Your task to perform on an android device: Check the settings for the Twitter app Image 0: 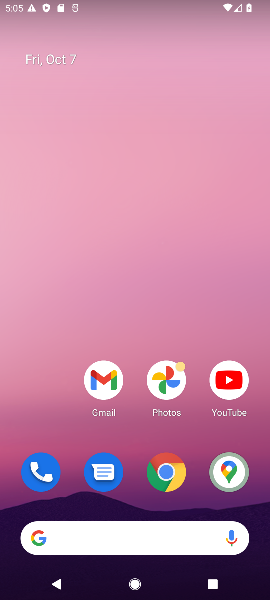
Step 0: drag from (195, 431) to (195, 259)
Your task to perform on an android device: Check the settings for the Twitter app Image 1: 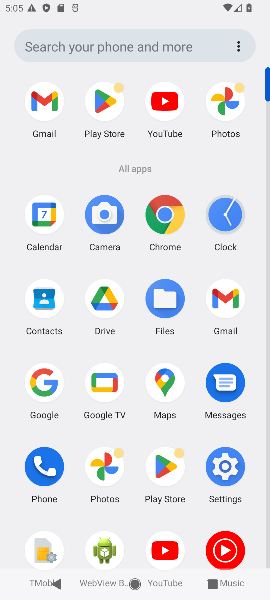
Step 1: click (167, 479)
Your task to perform on an android device: Check the settings for the Twitter app Image 2: 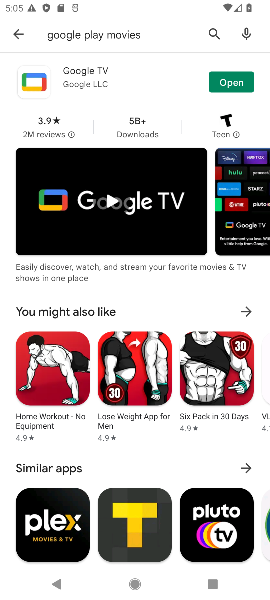
Step 2: click (216, 36)
Your task to perform on an android device: Check the settings for the Twitter app Image 3: 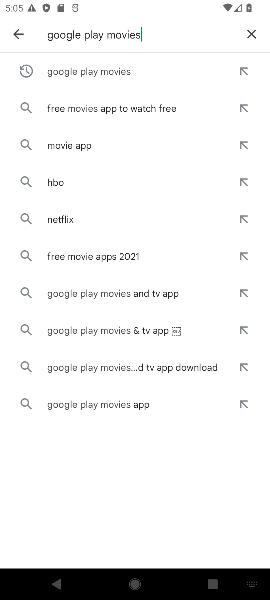
Step 3: click (252, 35)
Your task to perform on an android device: Check the settings for the Twitter app Image 4: 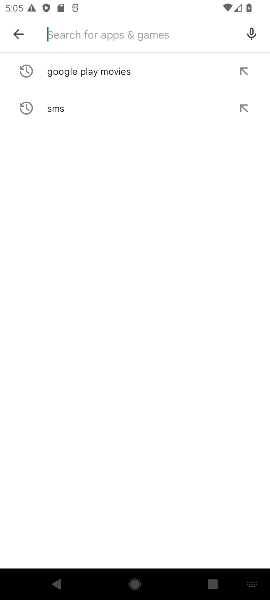
Step 4: type "twitter"
Your task to perform on an android device: Check the settings for the Twitter app Image 5: 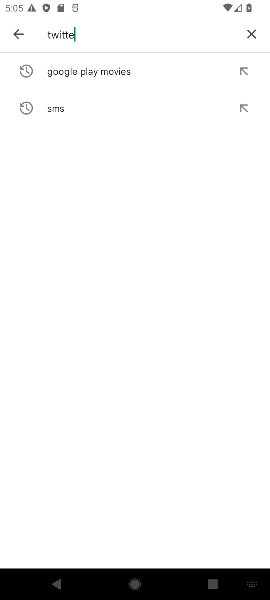
Step 5: type ""
Your task to perform on an android device: Check the settings for the Twitter app Image 6: 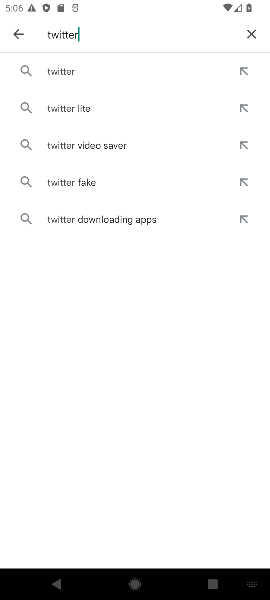
Step 6: click (73, 73)
Your task to perform on an android device: Check the settings for the Twitter app Image 7: 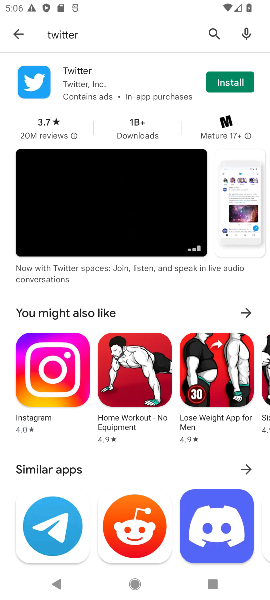
Step 7: click (230, 85)
Your task to perform on an android device: Check the settings for the Twitter app Image 8: 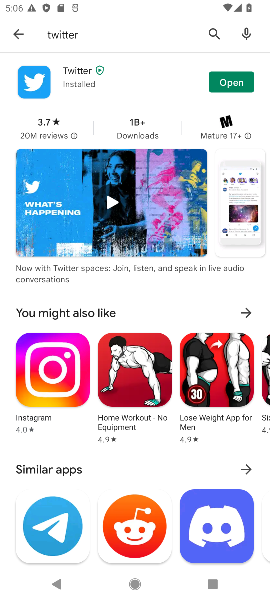
Step 8: click (232, 85)
Your task to perform on an android device: Check the settings for the Twitter app Image 9: 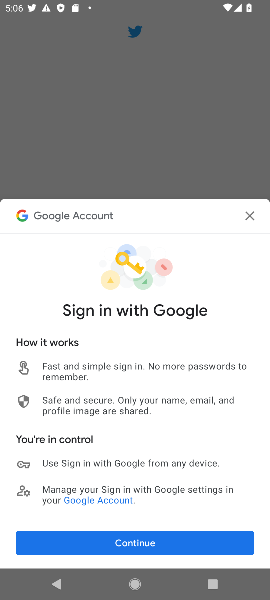
Step 9: click (249, 219)
Your task to perform on an android device: Check the settings for the Twitter app Image 10: 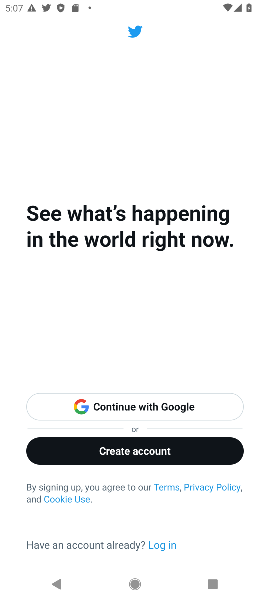
Step 10: task complete